Your task to perform on an android device: Go to Yahoo.com Image 0: 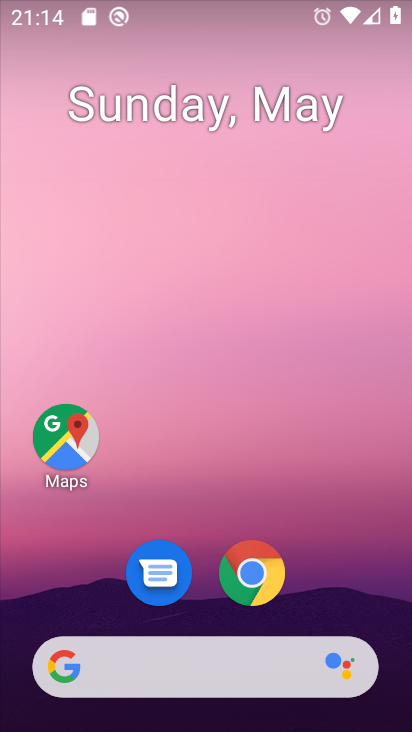
Step 0: click (229, 662)
Your task to perform on an android device: Go to Yahoo.com Image 1: 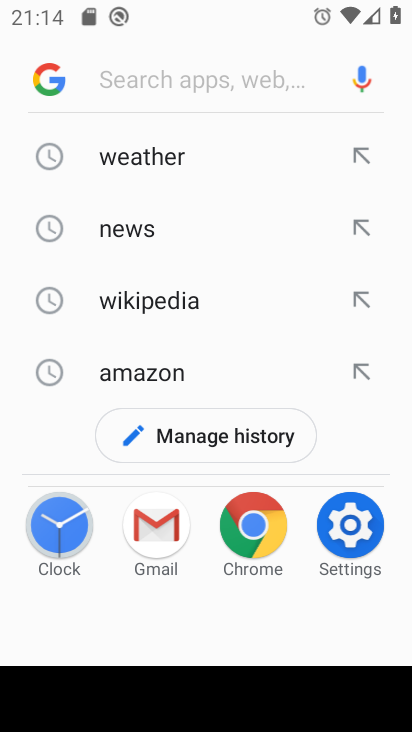
Step 1: type "yahoo.com"
Your task to perform on an android device: Go to Yahoo.com Image 2: 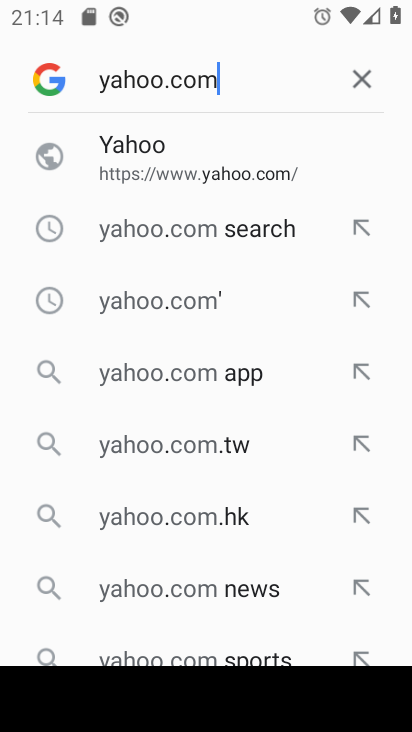
Step 2: click (229, 170)
Your task to perform on an android device: Go to Yahoo.com Image 3: 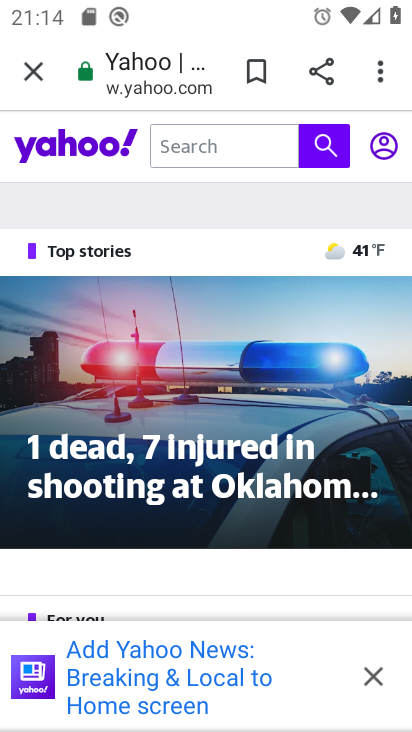
Step 3: task complete